Your task to perform on an android device: Open CNN.com Image 0: 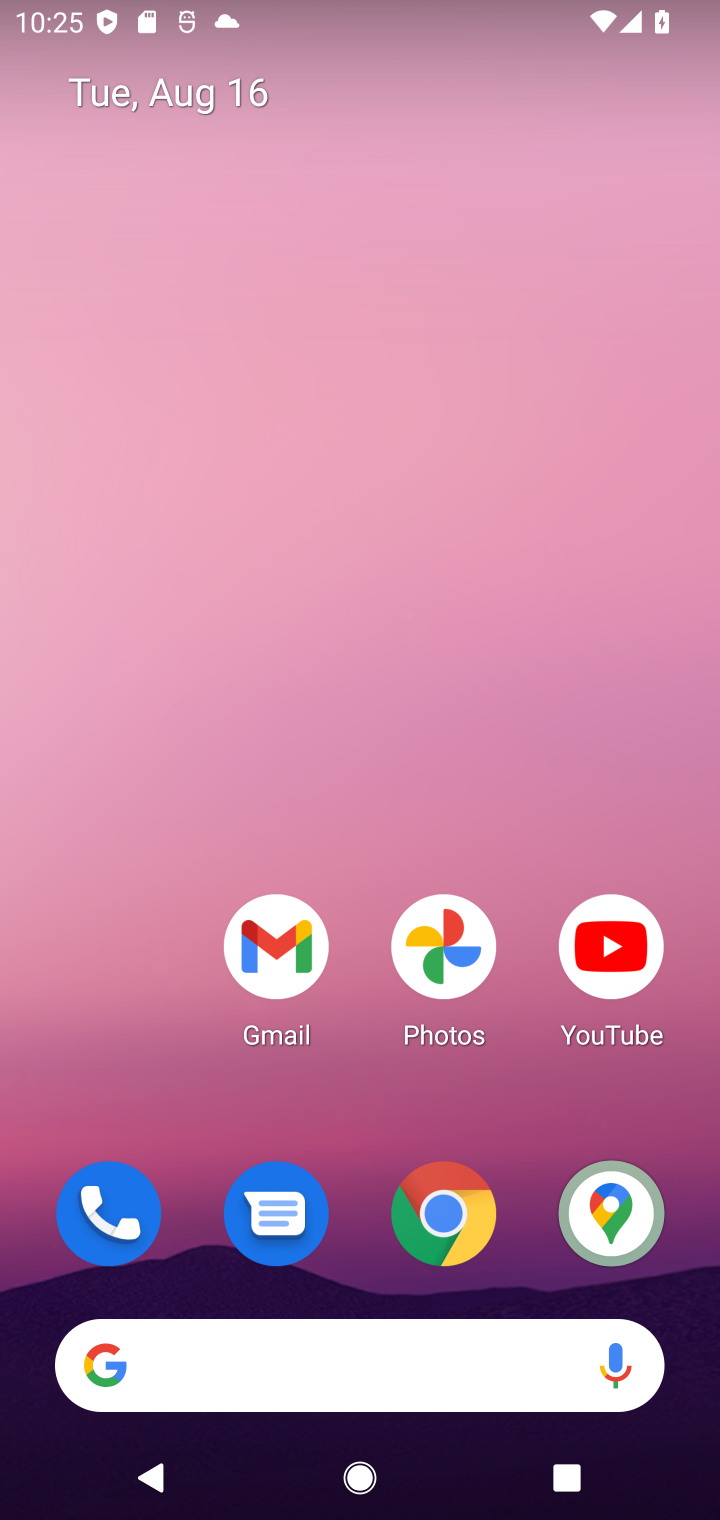
Step 0: drag from (229, 903) to (219, 410)
Your task to perform on an android device: Open CNN.com Image 1: 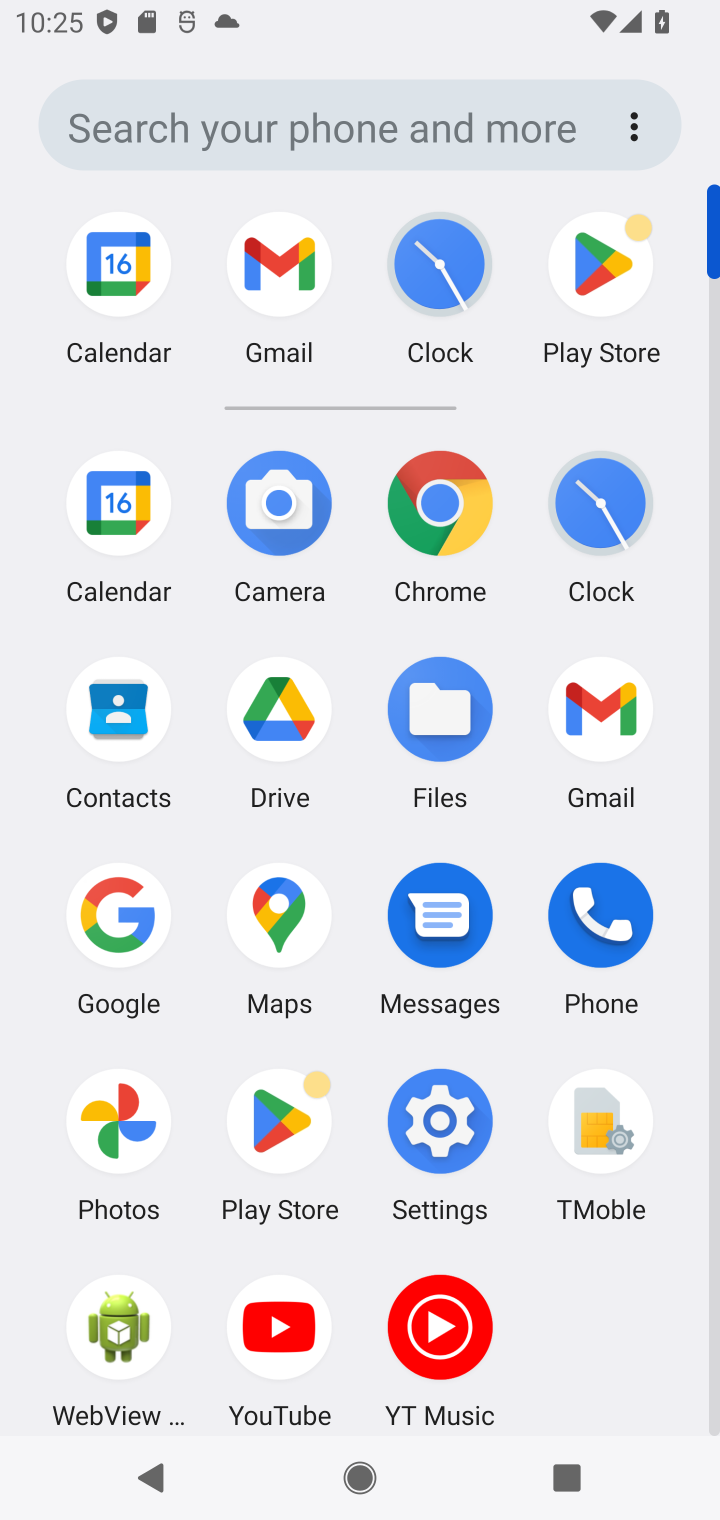
Step 1: click (427, 499)
Your task to perform on an android device: Open CNN.com Image 2: 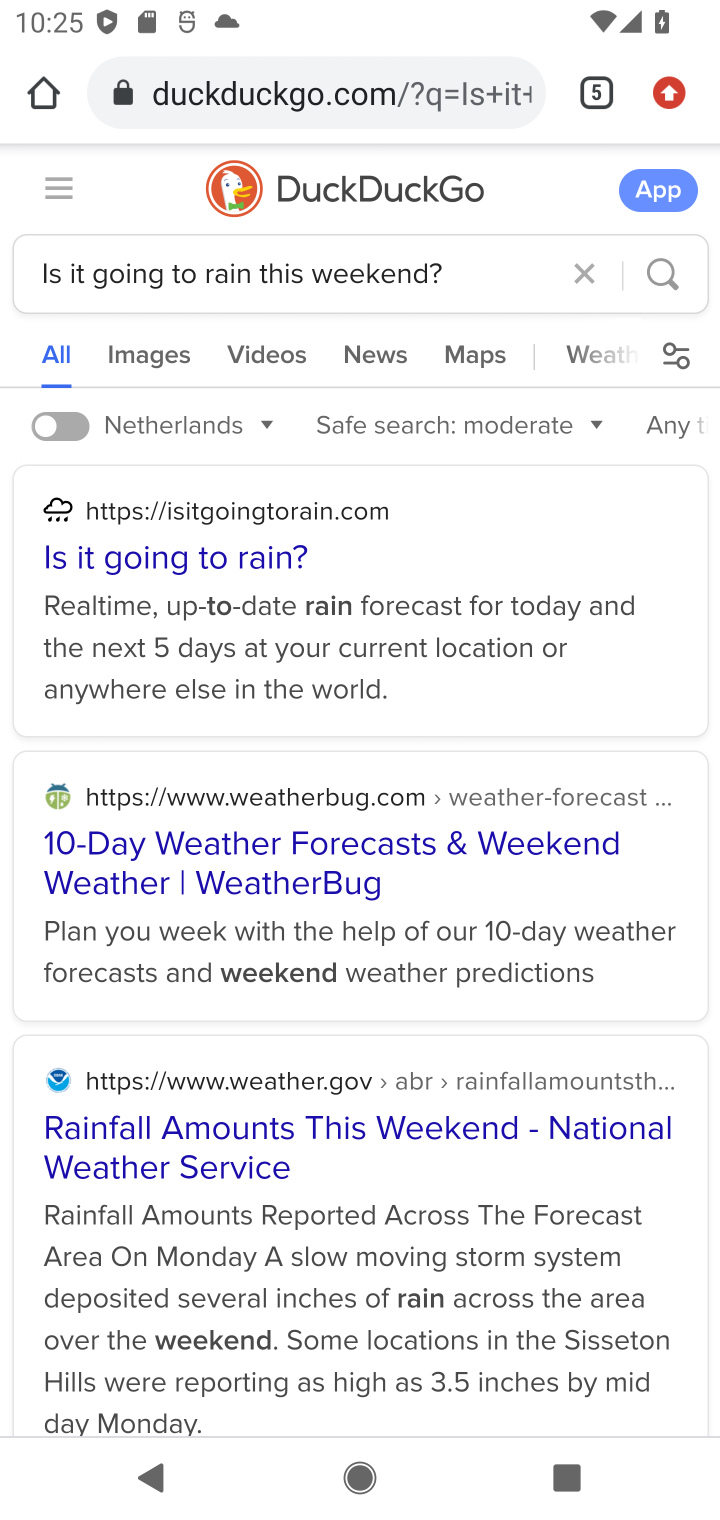
Step 2: click (673, 86)
Your task to perform on an android device: Open CNN.com Image 3: 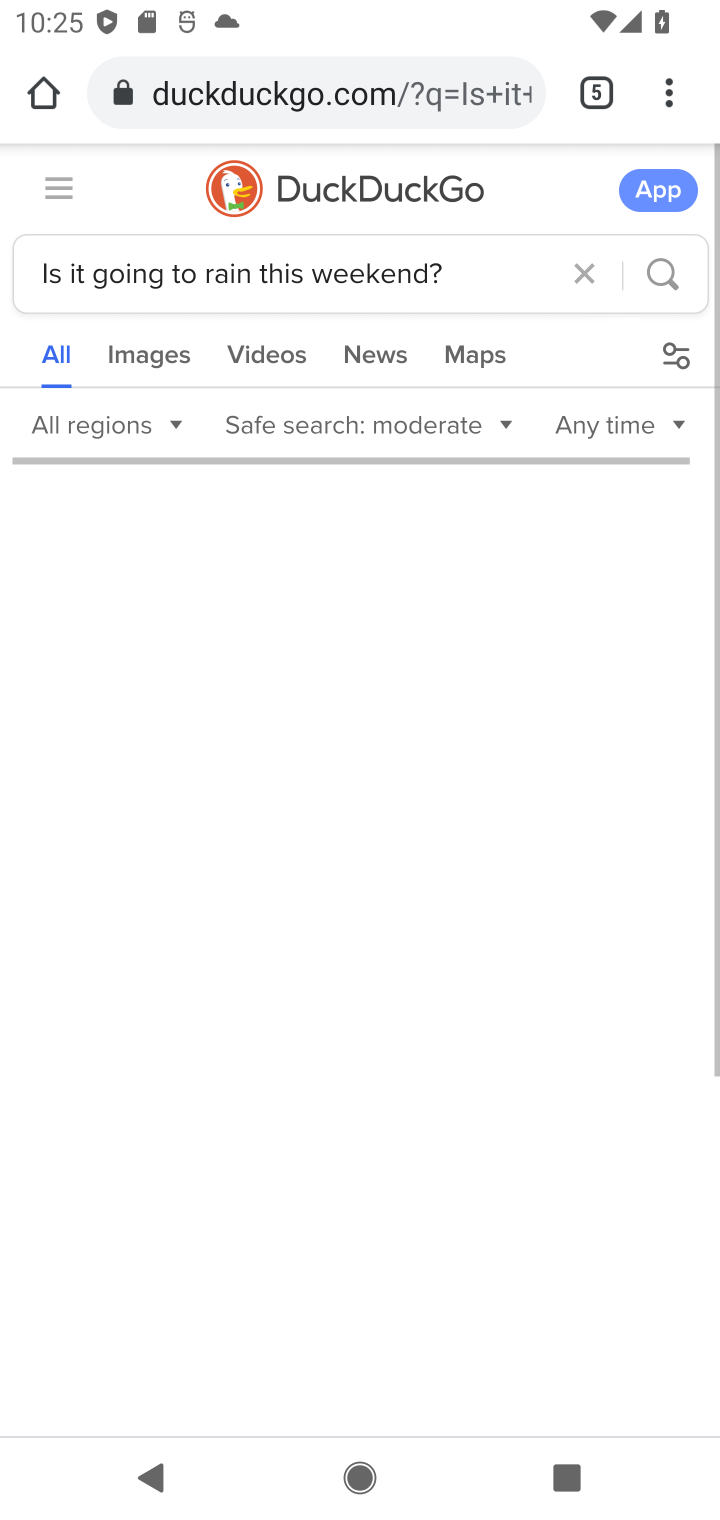
Step 3: click (682, 75)
Your task to perform on an android device: Open CNN.com Image 4: 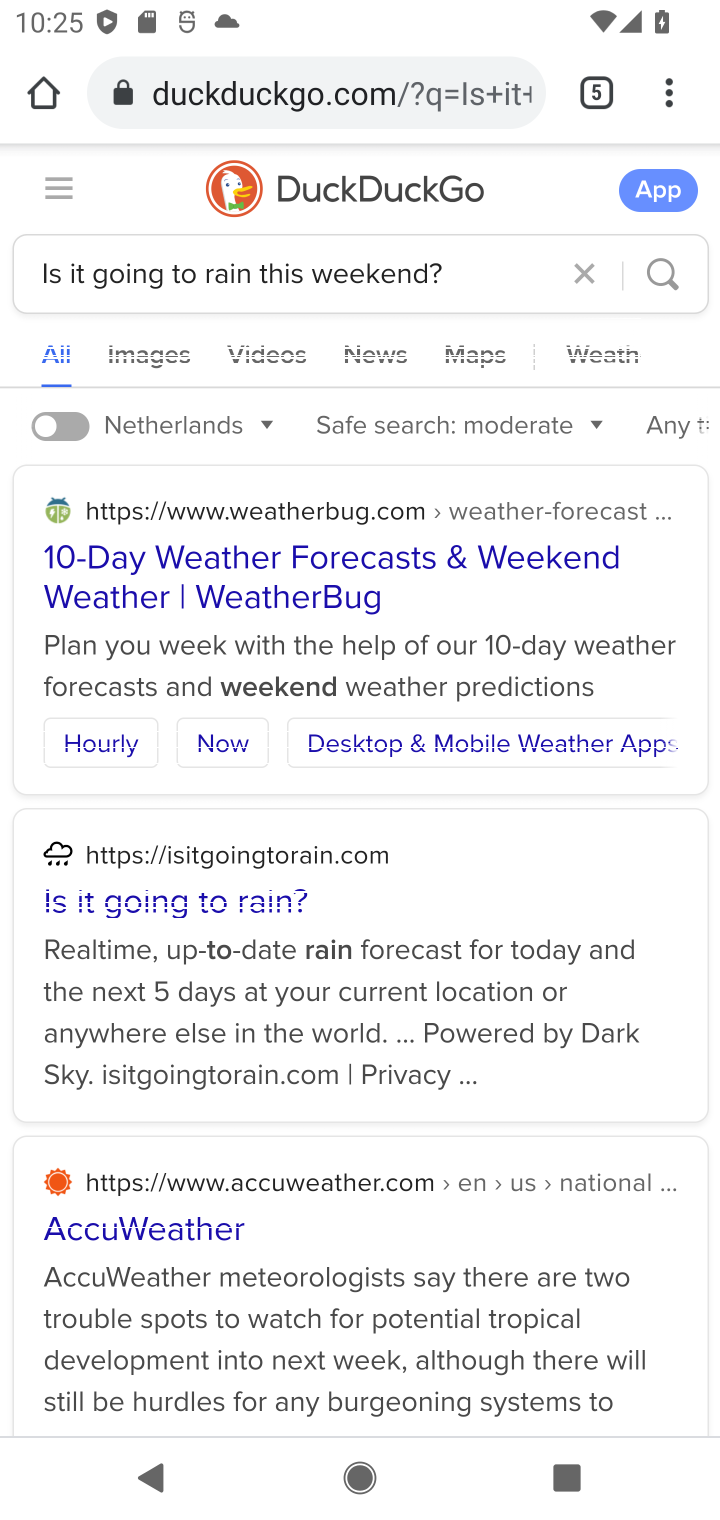
Step 4: click (661, 91)
Your task to perform on an android device: Open CNN.com Image 5: 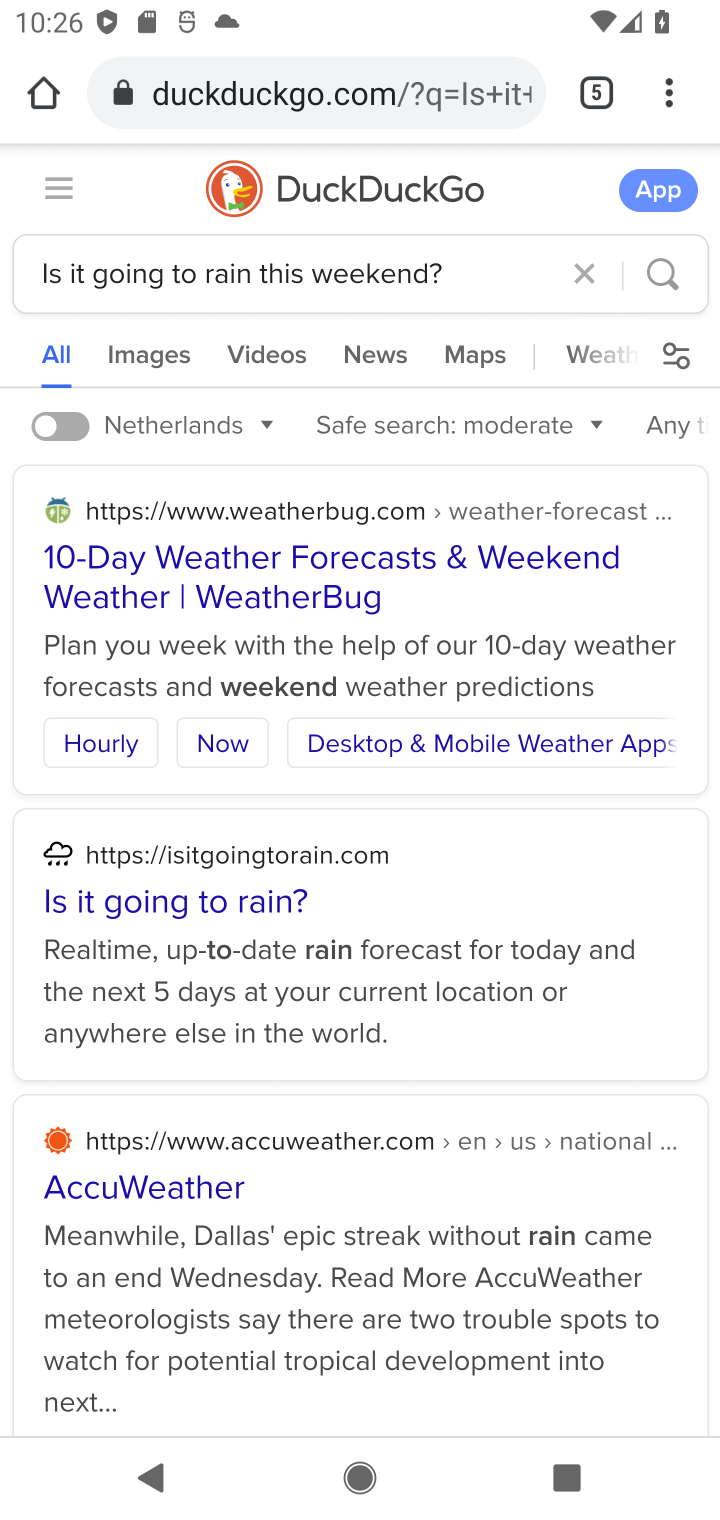
Step 5: click (674, 90)
Your task to perform on an android device: Open CNN.com Image 6: 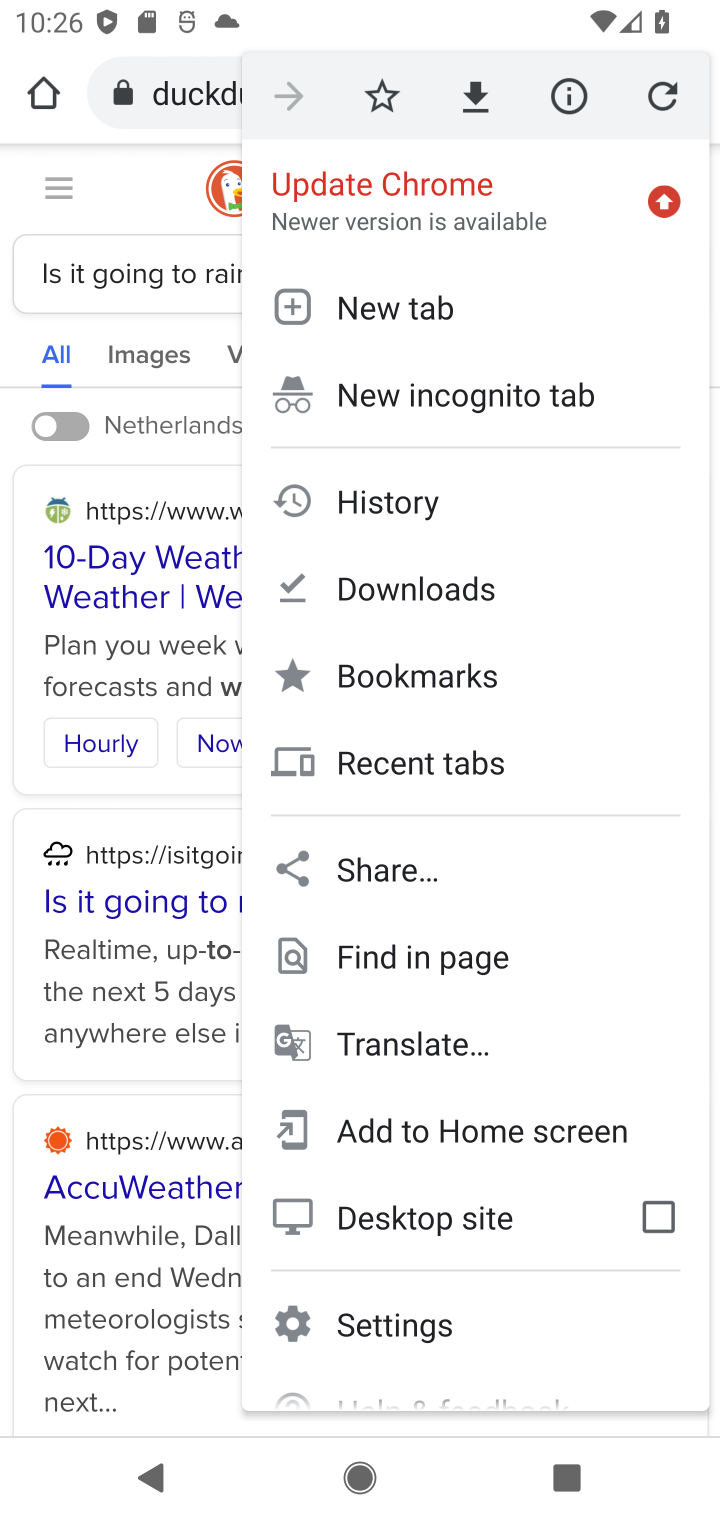
Step 6: click (345, 288)
Your task to perform on an android device: Open CNN.com Image 7: 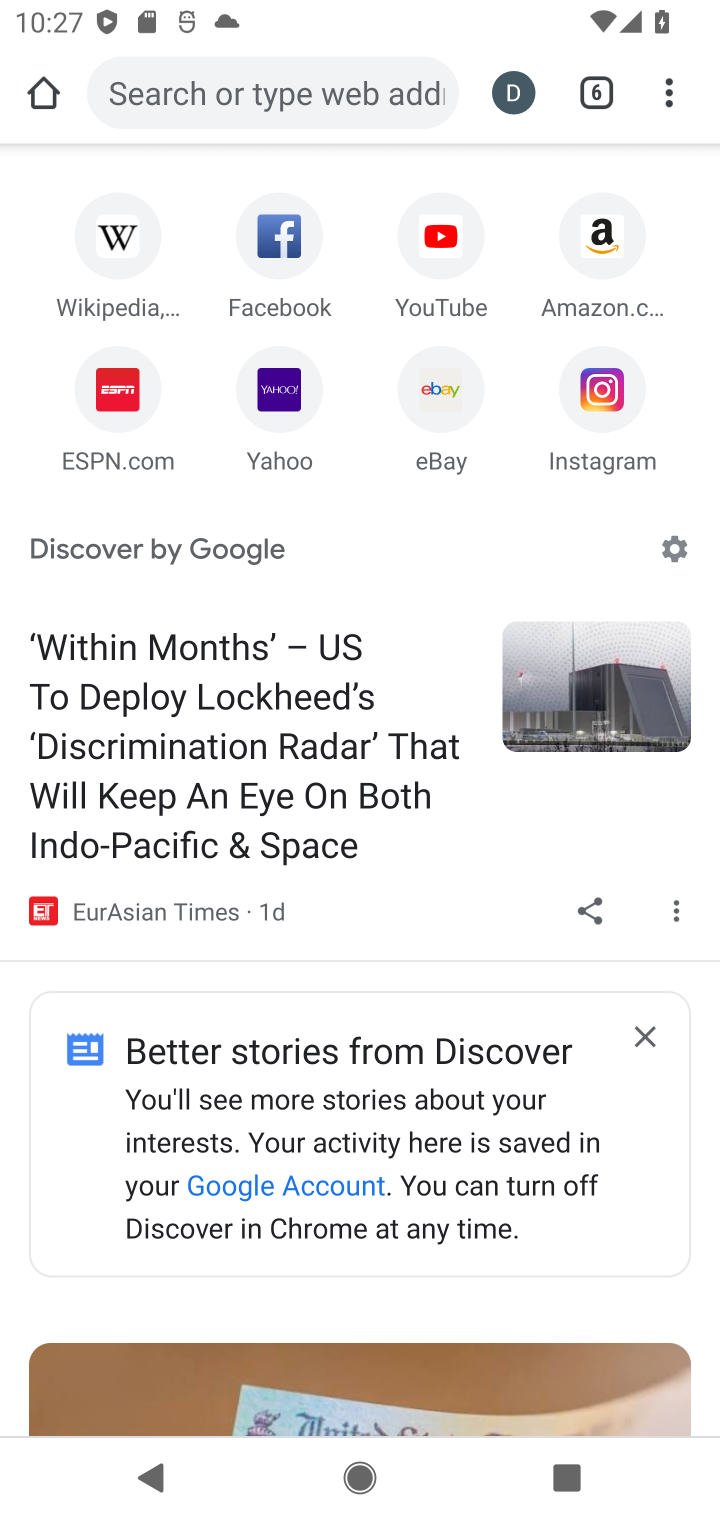
Step 7: click (317, 67)
Your task to perform on an android device: Open CNN.com Image 8: 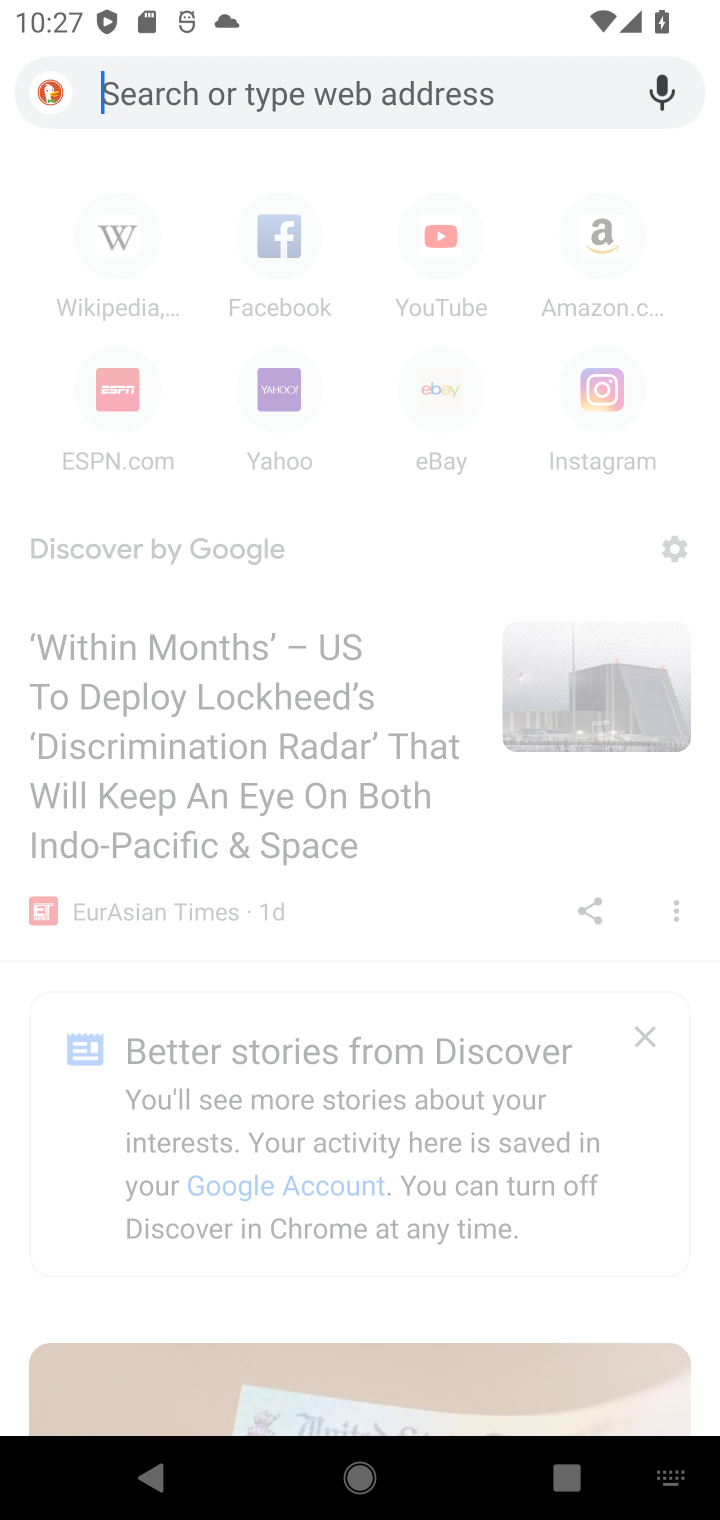
Step 8: type " CNN.com "
Your task to perform on an android device: Open CNN.com Image 9: 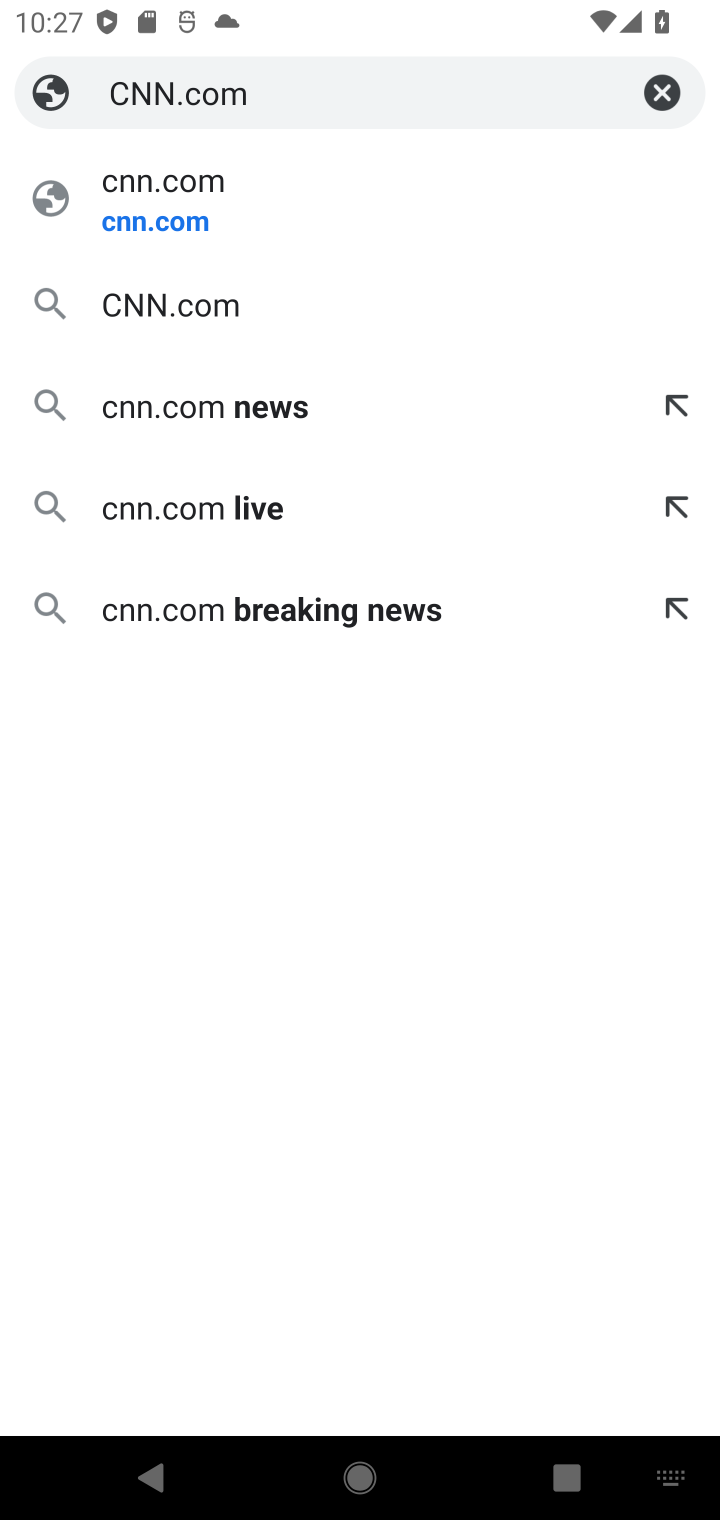
Step 9: click (190, 165)
Your task to perform on an android device: Open CNN.com Image 10: 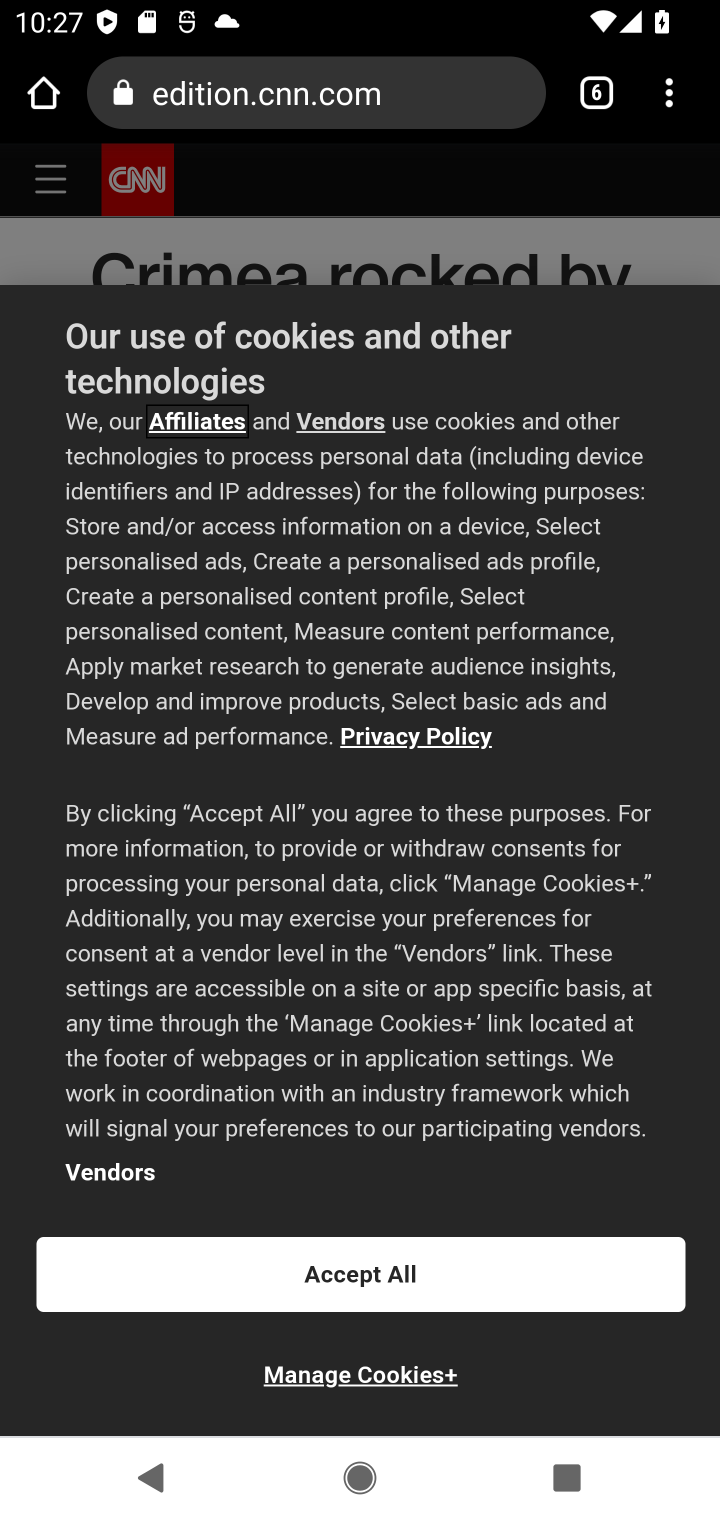
Step 10: task complete